Your task to perform on an android device: change notifications settings Image 0: 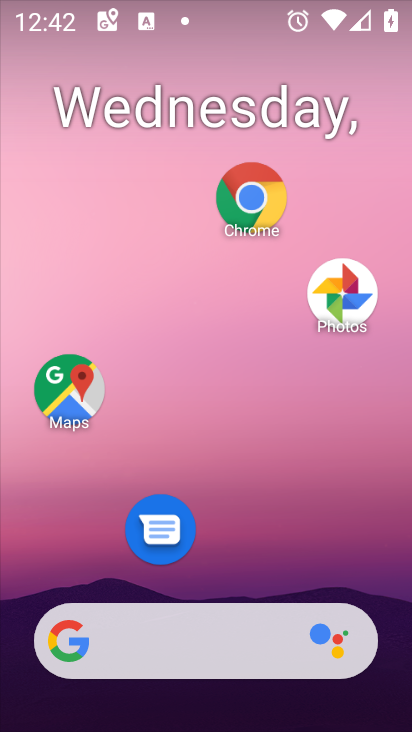
Step 0: drag from (278, 576) to (287, 183)
Your task to perform on an android device: change notifications settings Image 1: 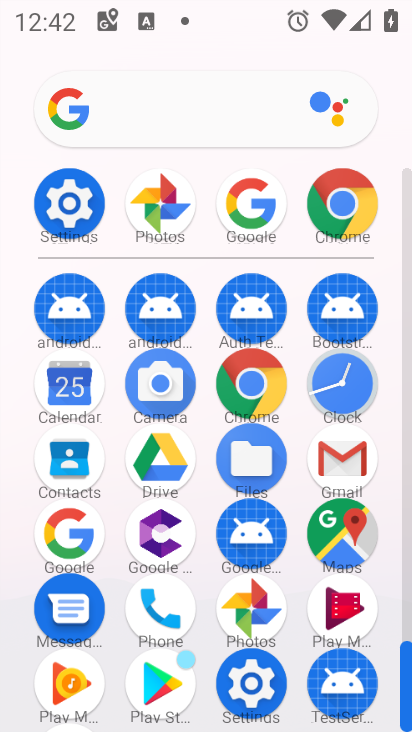
Step 1: click (84, 228)
Your task to perform on an android device: change notifications settings Image 2: 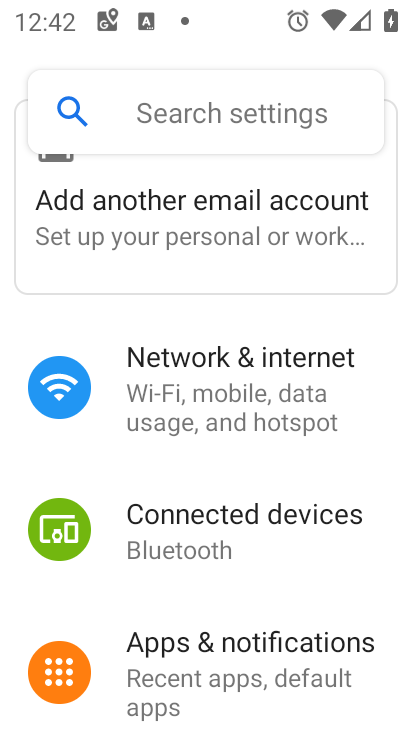
Step 2: drag from (190, 508) to (205, 356)
Your task to perform on an android device: change notifications settings Image 3: 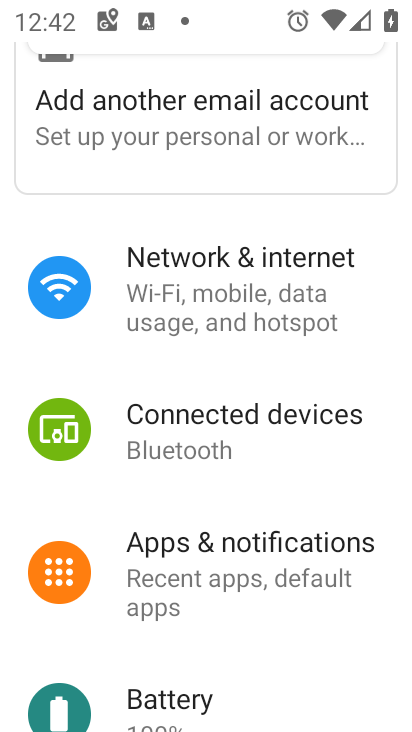
Step 3: click (278, 560)
Your task to perform on an android device: change notifications settings Image 4: 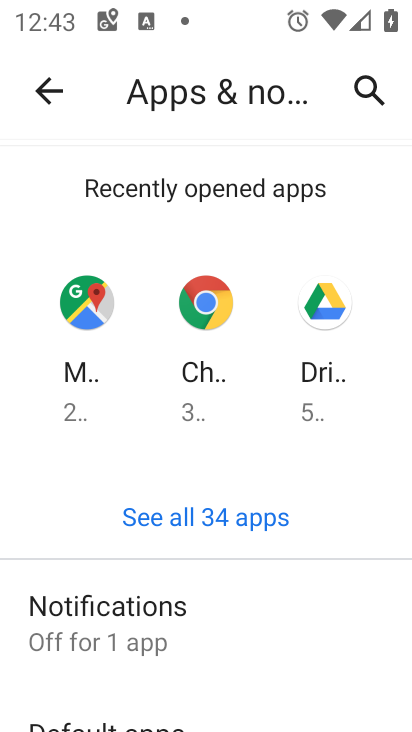
Step 4: drag from (265, 620) to (246, 482)
Your task to perform on an android device: change notifications settings Image 5: 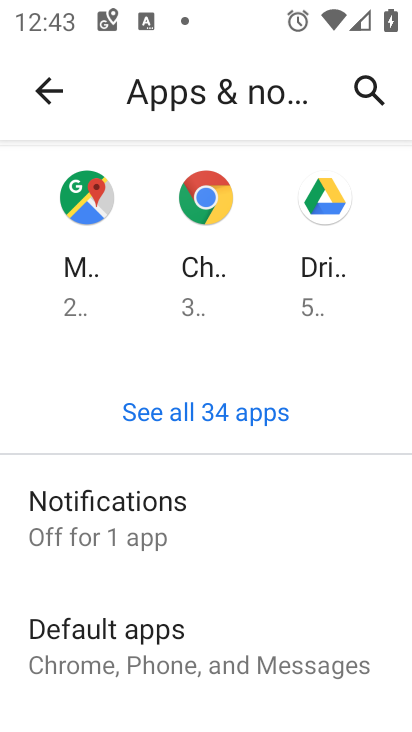
Step 5: click (217, 527)
Your task to perform on an android device: change notifications settings Image 6: 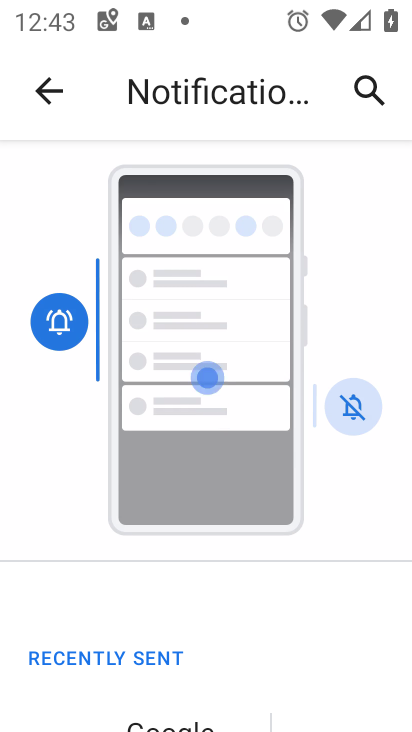
Step 6: drag from (228, 492) to (277, 193)
Your task to perform on an android device: change notifications settings Image 7: 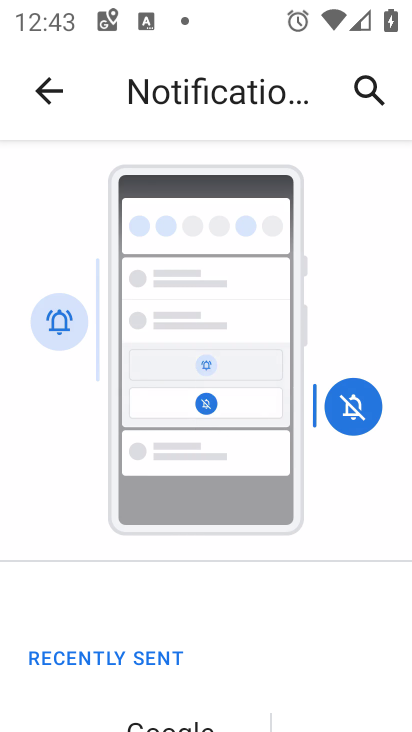
Step 7: drag from (268, 340) to (269, 208)
Your task to perform on an android device: change notifications settings Image 8: 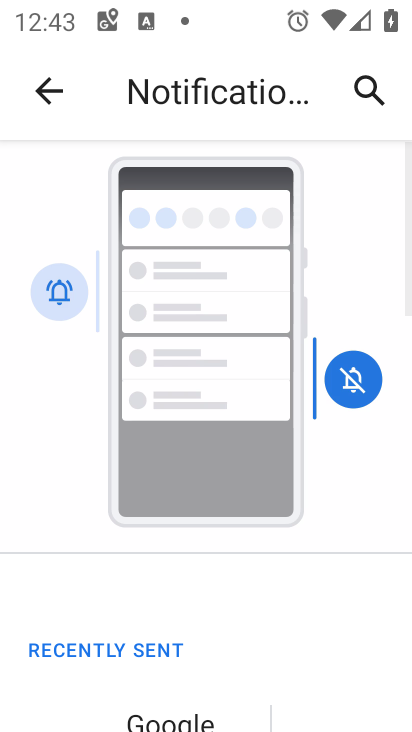
Step 8: drag from (303, 630) to (296, 327)
Your task to perform on an android device: change notifications settings Image 9: 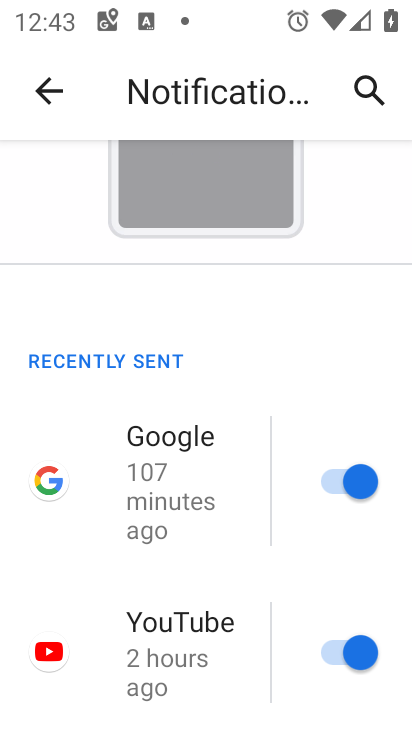
Step 9: click (323, 489)
Your task to perform on an android device: change notifications settings Image 10: 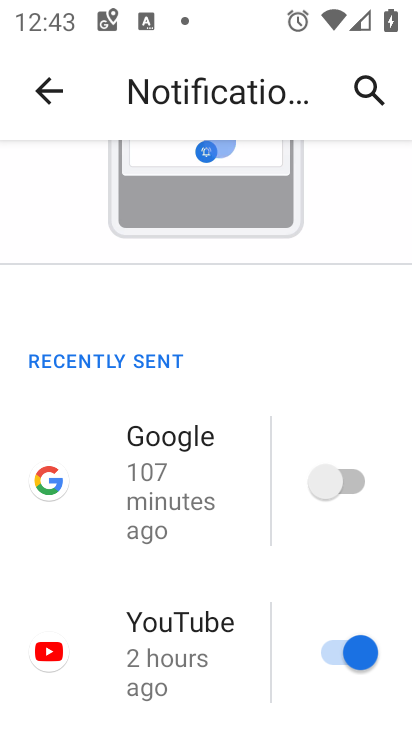
Step 10: task complete